Your task to perform on an android device: turn off picture-in-picture Image 0: 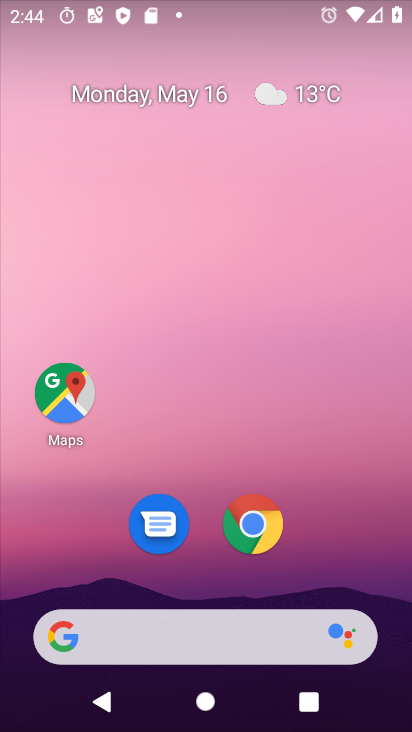
Step 0: click (262, 524)
Your task to perform on an android device: turn off picture-in-picture Image 1: 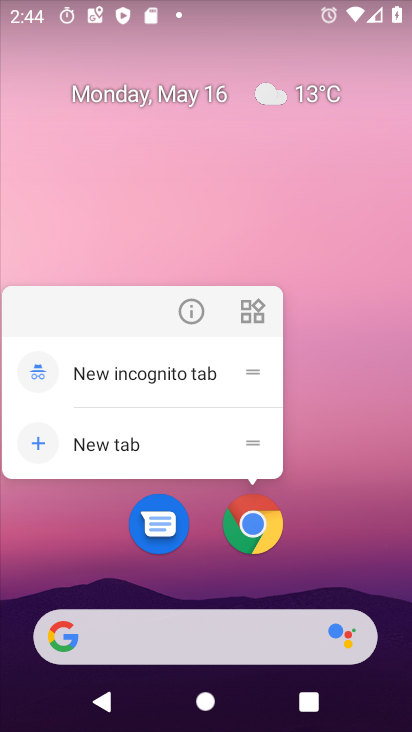
Step 1: click (189, 305)
Your task to perform on an android device: turn off picture-in-picture Image 2: 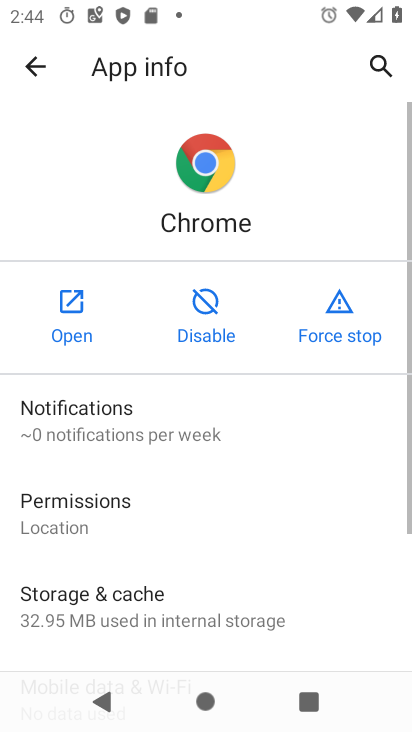
Step 2: drag from (235, 523) to (250, 143)
Your task to perform on an android device: turn off picture-in-picture Image 3: 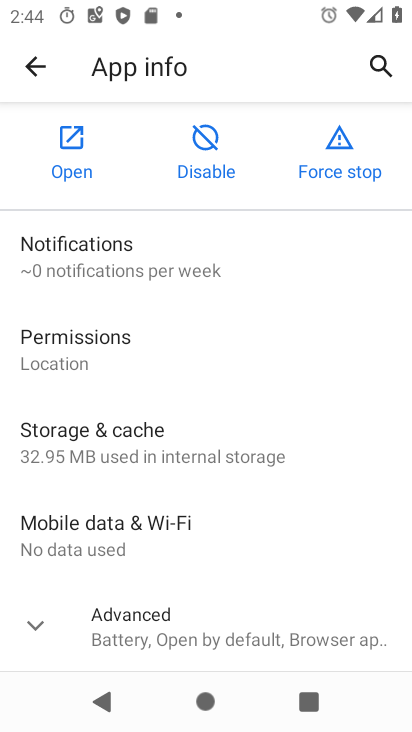
Step 3: click (39, 618)
Your task to perform on an android device: turn off picture-in-picture Image 4: 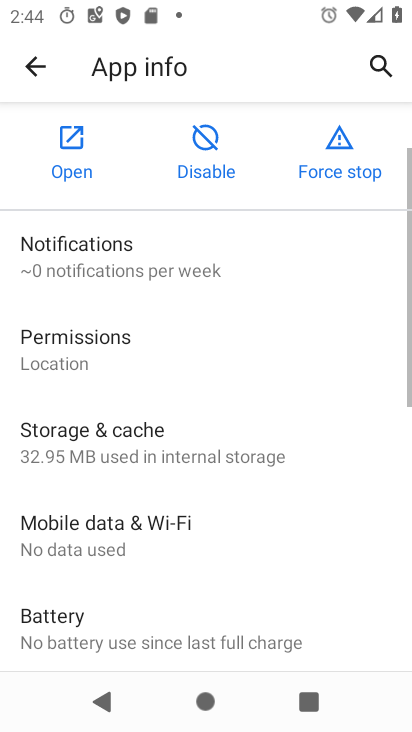
Step 4: drag from (172, 561) to (250, 220)
Your task to perform on an android device: turn off picture-in-picture Image 5: 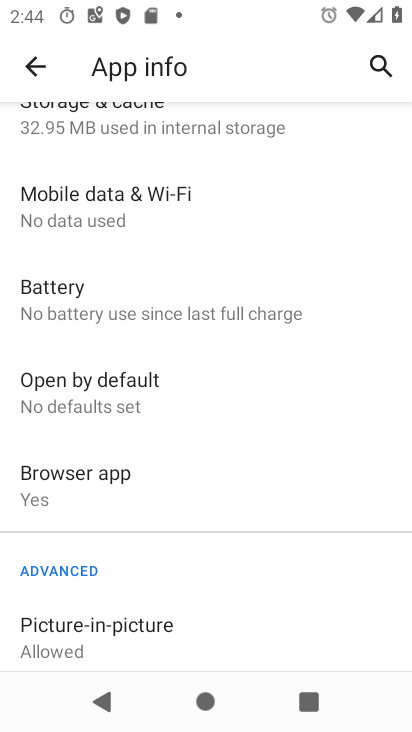
Step 5: click (136, 631)
Your task to perform on an android device: turn off picture-in-picture Image 6: 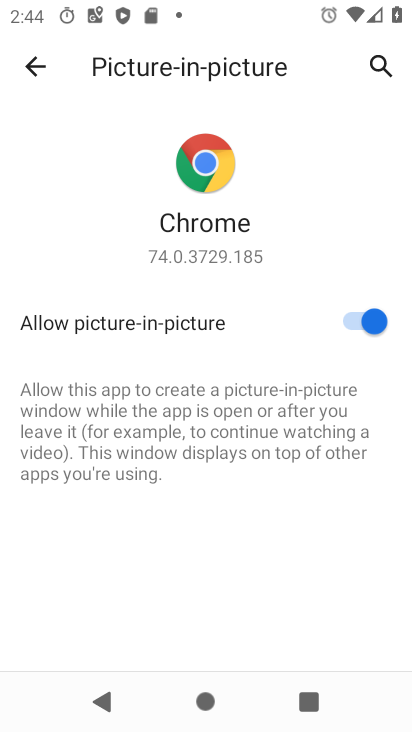
Step 6: click (365, 312)
Your task to perform on an android device: turn off picture-in-picture Image 7: 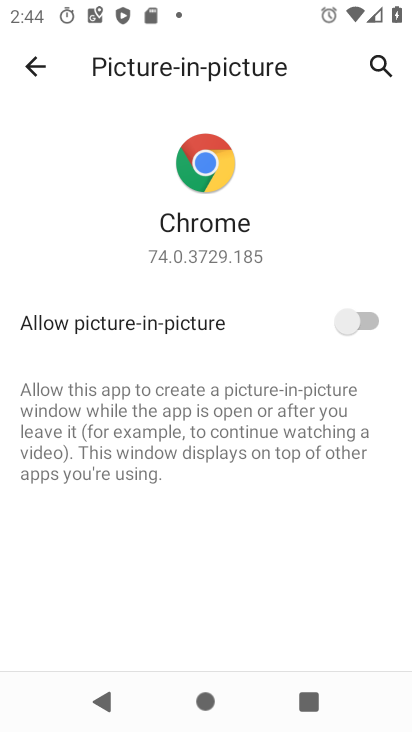
Step 7: task complete